Your task to perform on an android device: Play the last video I watched on Youtube Image 0: 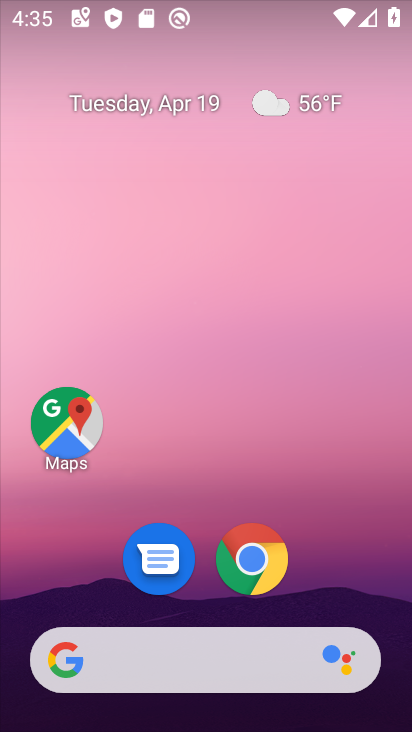
Step 0: click (263, 570)
Your task to perform on an android device: Play the last video I watched on Youtube Image 1: 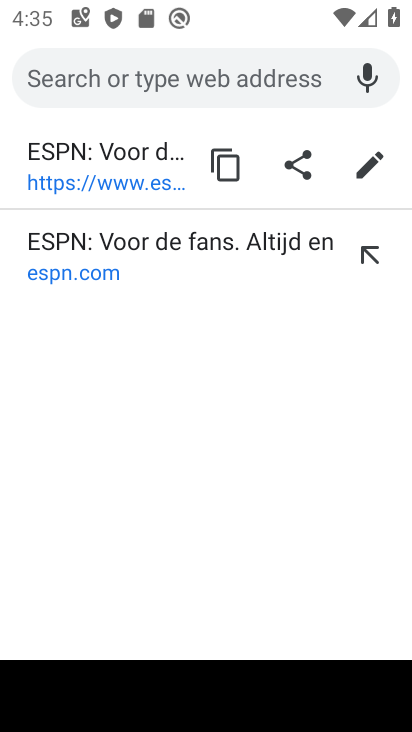
Step 1: press back button
Your task to perform on an android device: Play the last video I watched on Youtube Image 2: 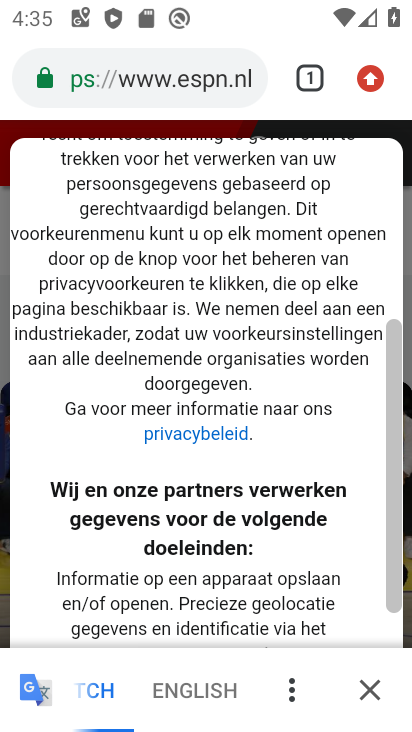
Step 2: press back button
Your task to perform on an android device: Play the last video I watched on Youtube Image 3: 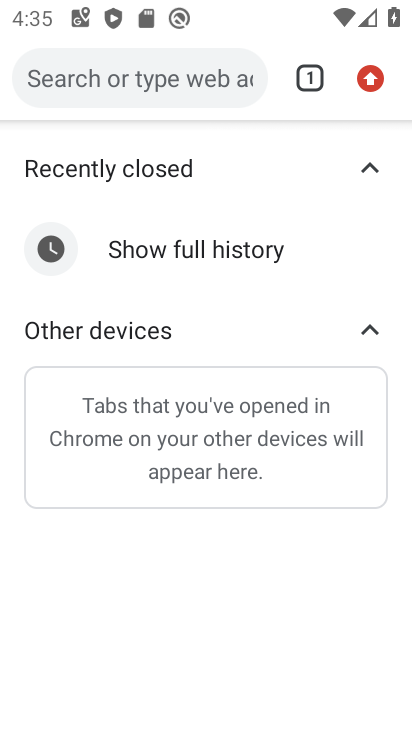
Step 3: click (105, 78)
Your task to perform on an android device: Play the last video I watched on Youtube Image 4: 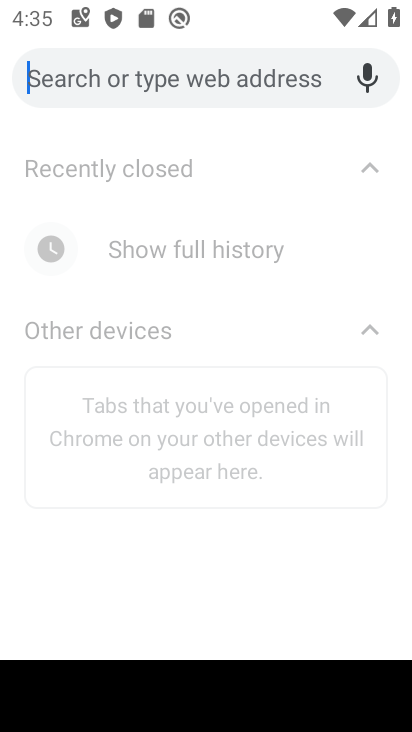
Step 4: press back button
Your task to perform on an android device: Play the last video I watched on Youtube Image 5: 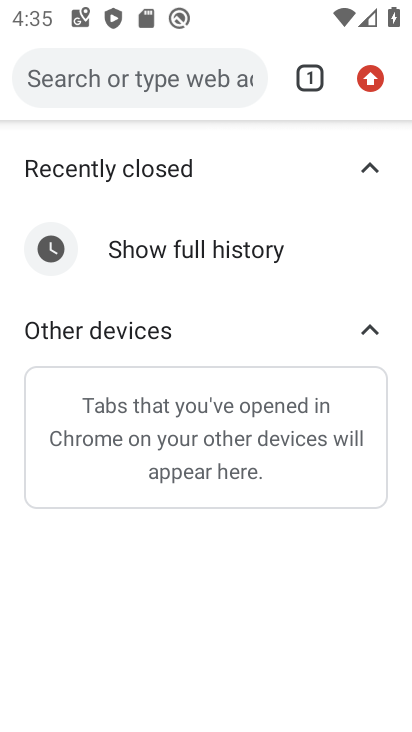
Step 5: press back button
Your task to perform on an android device: Play the last video I watched on Youtube Image 6: 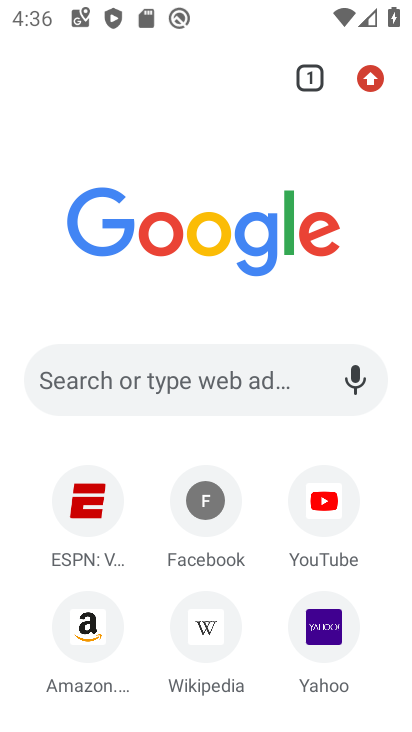
Step 6: click (330, 489)
Your task to perform on an android device: Play the last video I watched on Youtube Image 7: 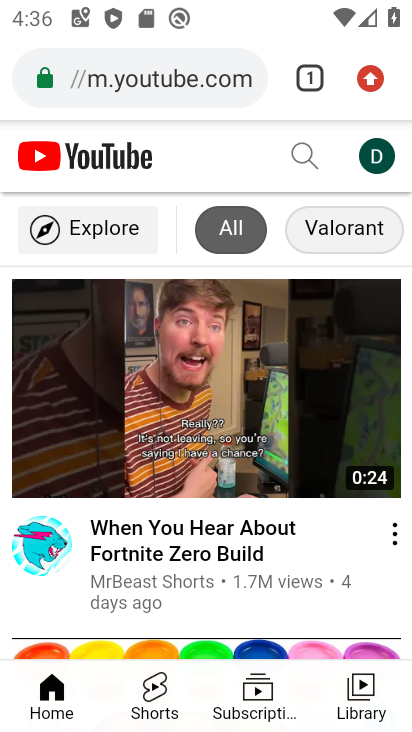
Step 7: click (357, 691)
Your task to perform on an android device: Play the last video I watched on Youtube Image 8: 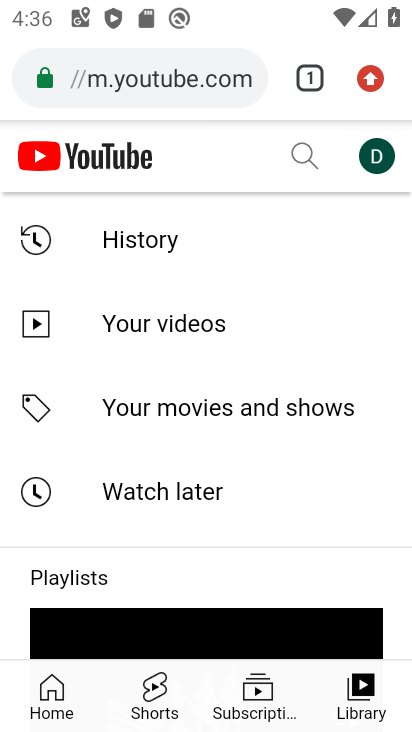
Step 8: drag from (291, 452) to (293, 248)
Your task to perform on an android device: Play the last video I watched on Youtube Image 9: 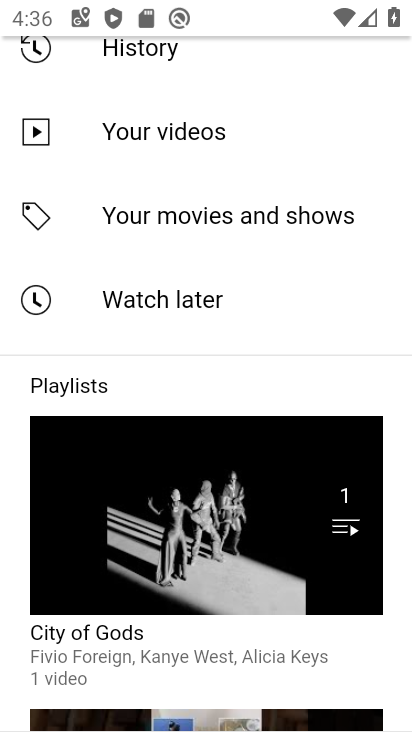
Step 9: drag from (303, 112) to (303, 306)
Your task to perform on an android device: Play the last video I watched on Youtube Image 10: 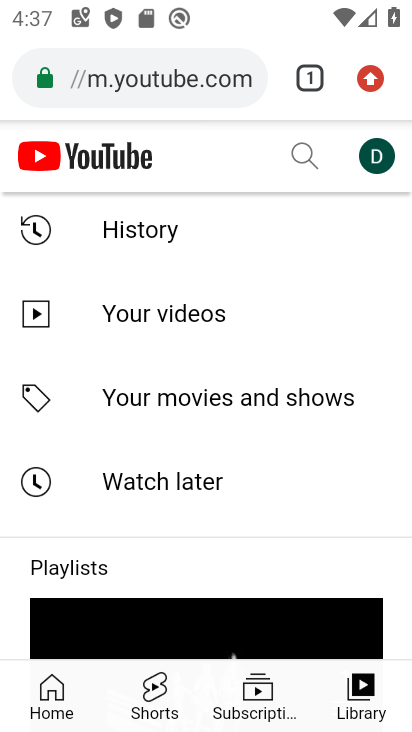
Step 10: click (130, 231)
Your task to perform on an android device: Play the last video I watched on Youtube Image 11: 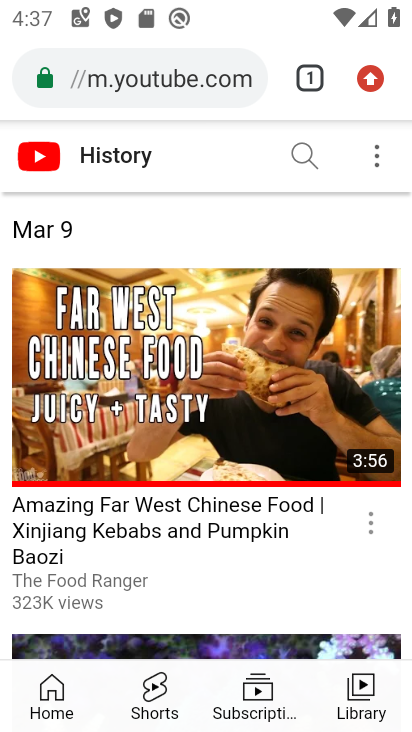
Step 11: click (192, 387)
Your task to perform on an android device: Play the last video I watched on Youtube Image 12: 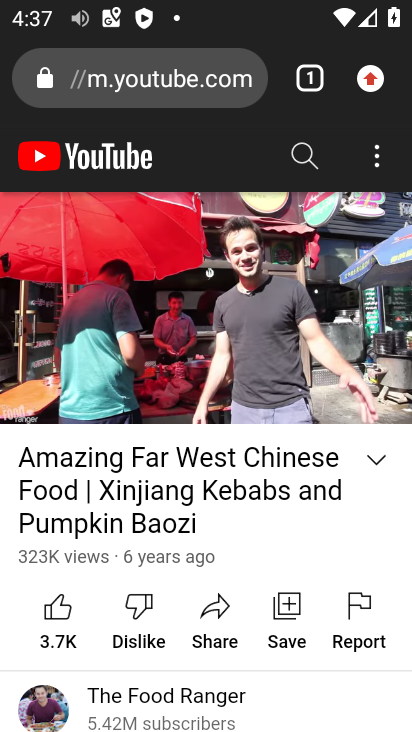
Step 12: task complete